Your task to perform on an android device: What's the weather going to be tomorrow? Image 0: 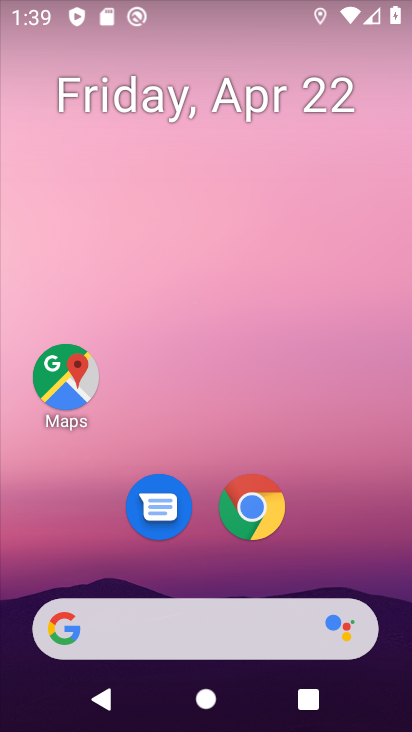
Step 0: drag from (185, 637) to (229, 89)
Your task to perform on an android device: What's the weather going to be tomorrow? Image 1: 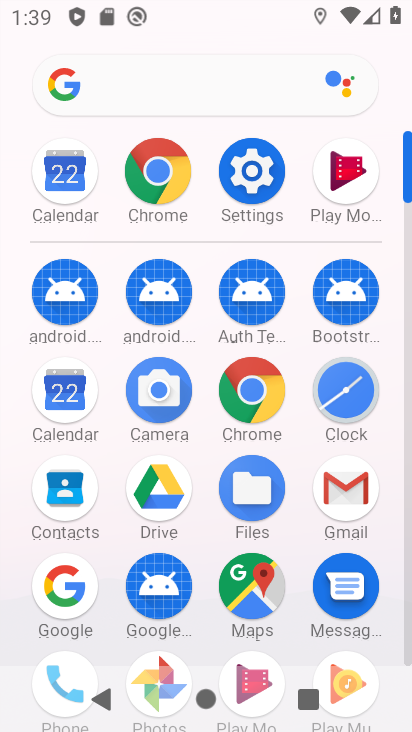
Step 1: click (52, 590)
Your task to perform on an android device: What's the weather going to be tomorrow? Image 2: 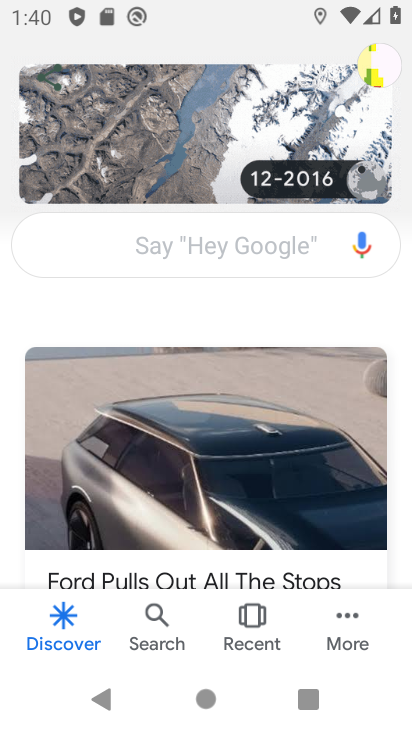
Step 2: drag from (204, 181) to (185, 623)
Your task to perform on an android device: What's the weather going to be tomorrow? Image 3: 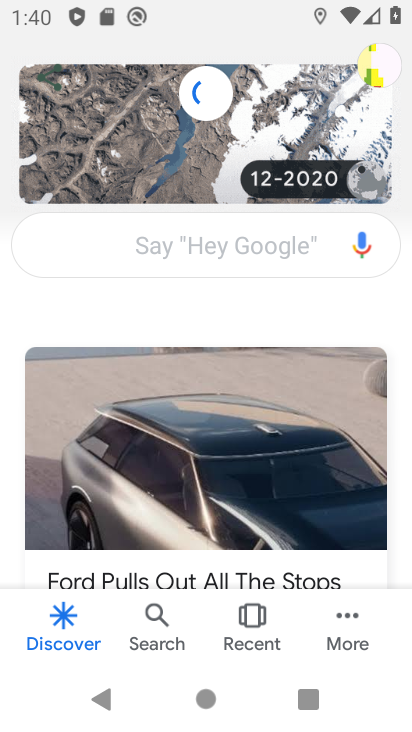
Step 3: drag from (264, 266) to (233, 497)
Your task to perform on an android device: What's the weather going to be tomorrow? Image 4: 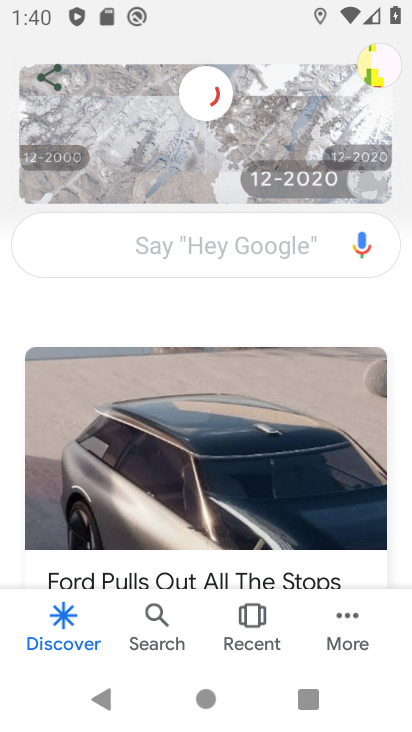
Step 4: drag from (162, 543) to (234, 345)
Your task to perform on an android device: What's the weather going to be tomorrow? Image 5: 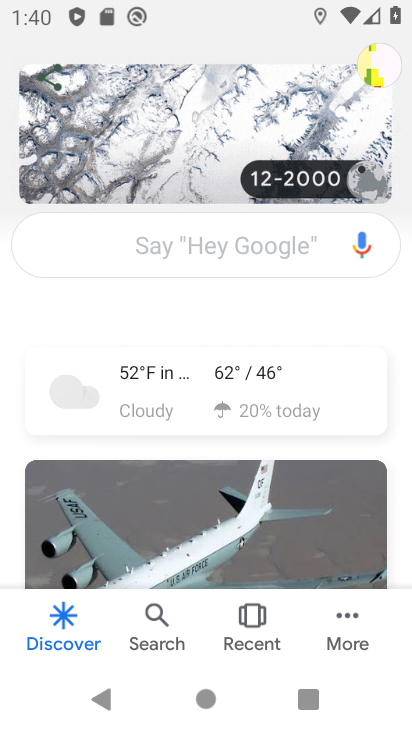
Step 5: click (253, 376)
Your task to perform on an android device: What's the weather going to be tomorrow? Image 6: 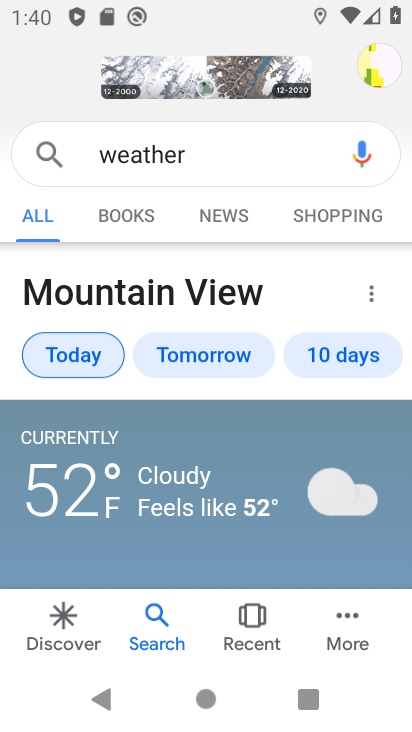
Step 6: click (202, 350)
Your task to perform on an android device: What's the weather going to be tomorrow? Image 7: 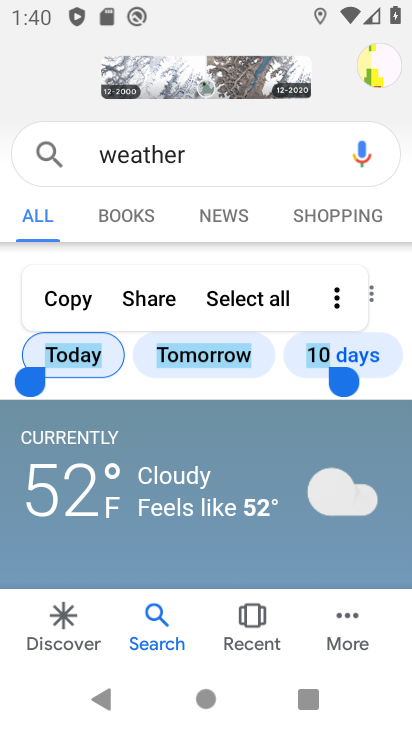
Step 7: click (202, 358)
Your task to perform on an android device: What's the weather going to be tomorrow? Image 8: 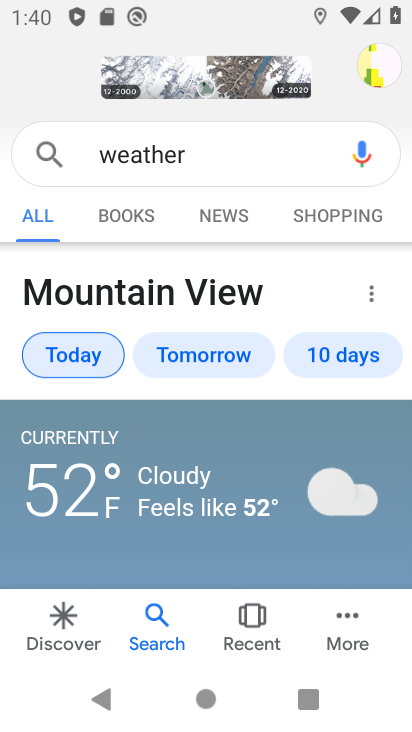
Step 8: click (208, 357)
Your task to perform on an android device: What's the weather going to be tomorrow? Image 9: 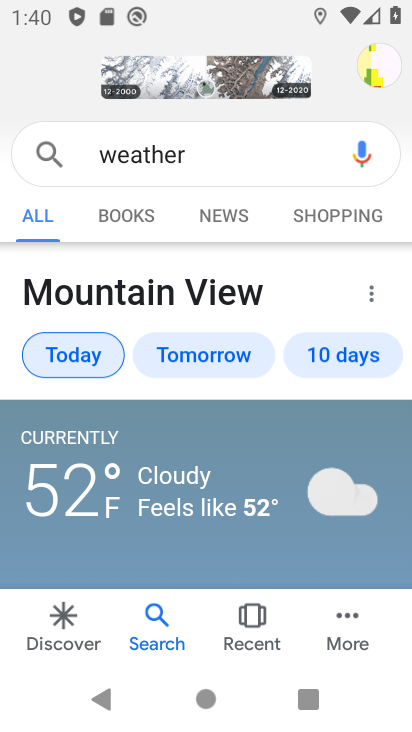
Step 9: click (200, 366)
Your task to perform on an android device: What's the weather going to be tomorrow? Image 10: 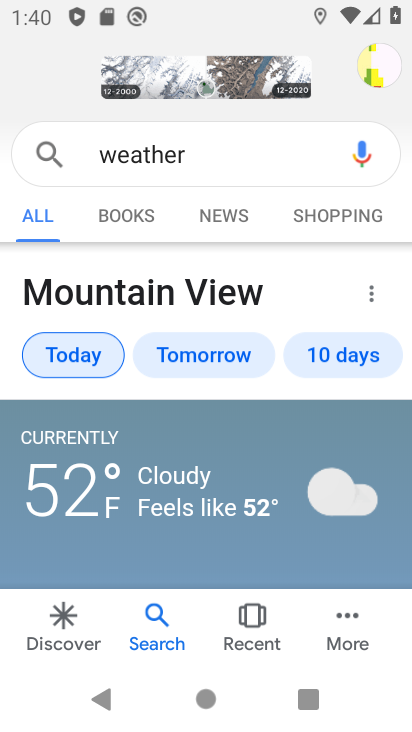
Step 10: drag from (157, 511) to (272, 106)
Your task to perform on an android device: What's the weather going to be tomorrow? Image 11: 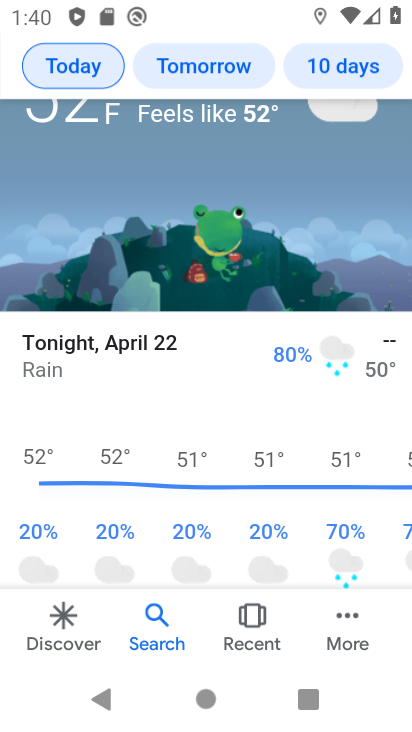
Step 11: drag from (241, 261) to (255, 518)
Your task to perform on an android device: What's the weather going to be tomorrow? Image 12: 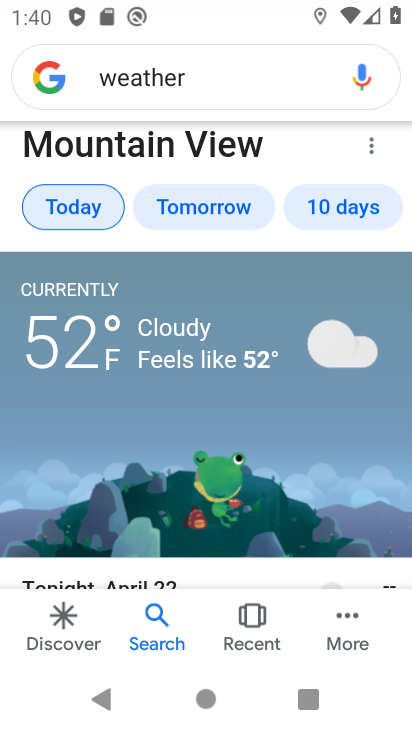
Step 12: click (220, 211)
Your task to perform on an android device: What's the weather going to be tomorrow? Image 13: 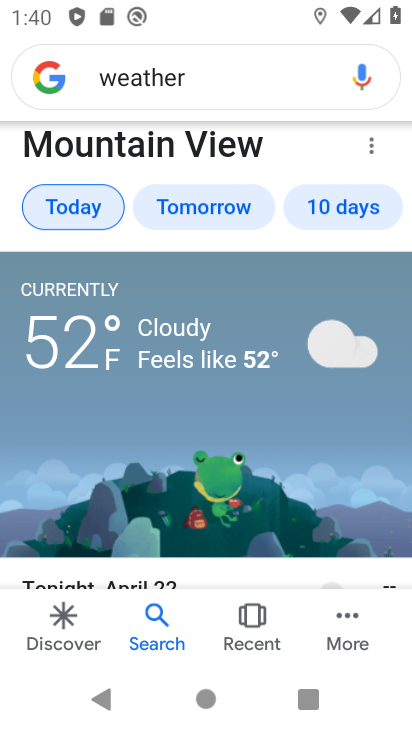
Step 13: click (220, 211)
Your task to perform on an android device: What's the weather going to be tomorrow? Image 14: 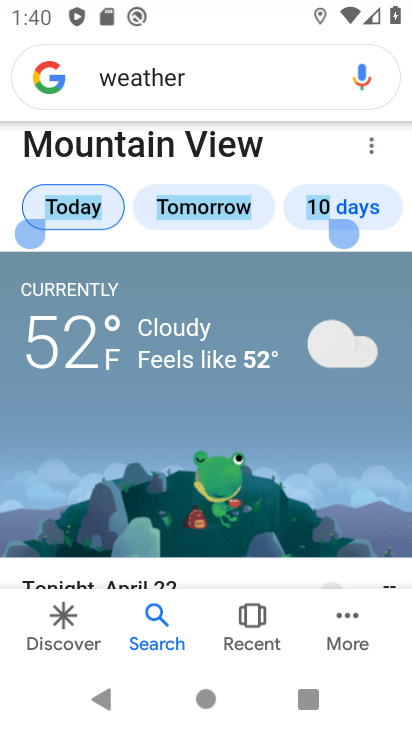
Step 14: click (220, 211)
Your task to perform on an android device: What's the weather going to be tomorrow? Image 15: 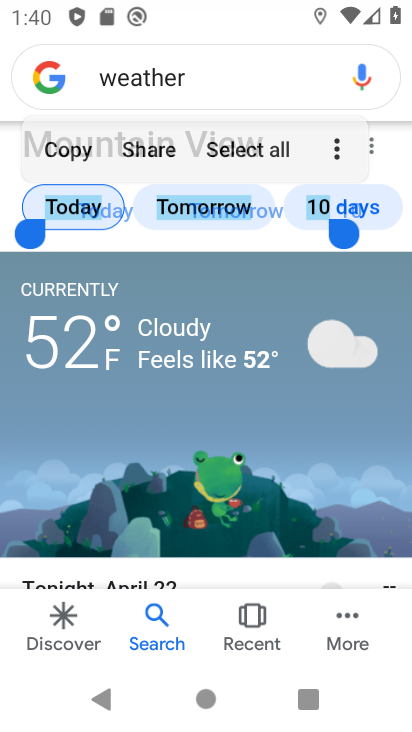
Step 15: click (220, 217)
Your task to perform on an android device: What's the weather going to be tomorrow? Image 16: 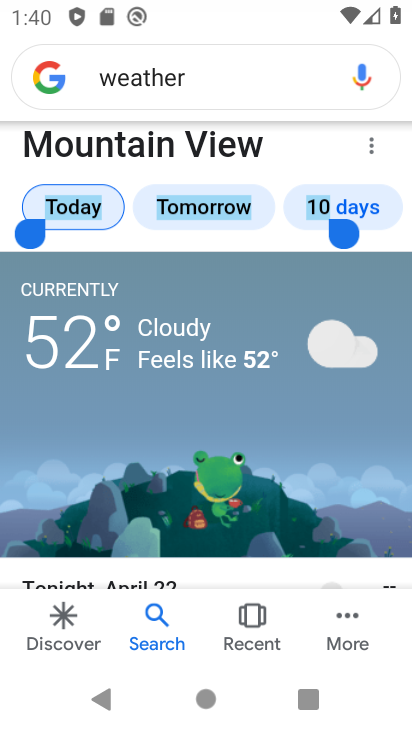
Step 16: task complete